Your task to perform on an android device: Search for hotels in Tokyo Image 0: 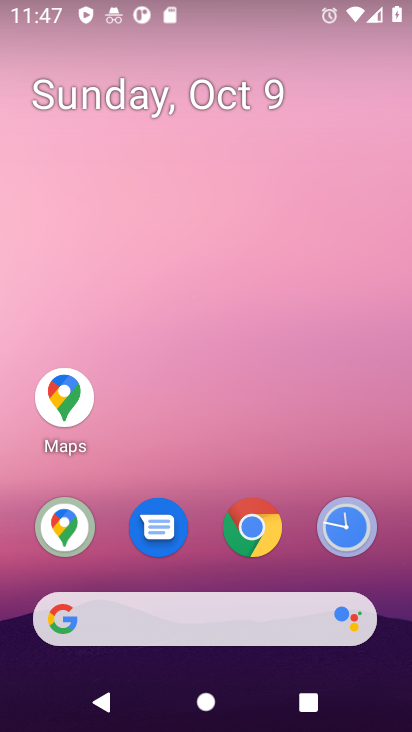
Step 0: click (64, 388)
Your task to perform on an android device: Search for hotels in Tokyo Image 1: 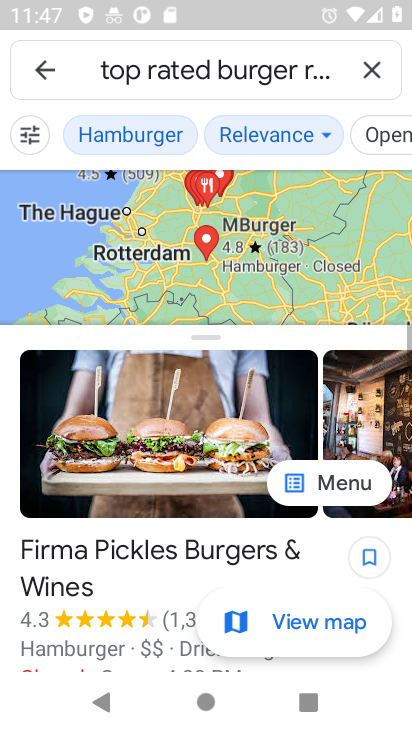
Step 1: click (227, 85)
Your task to perform on an android device: Search for hotels in Tokyo Image 2: 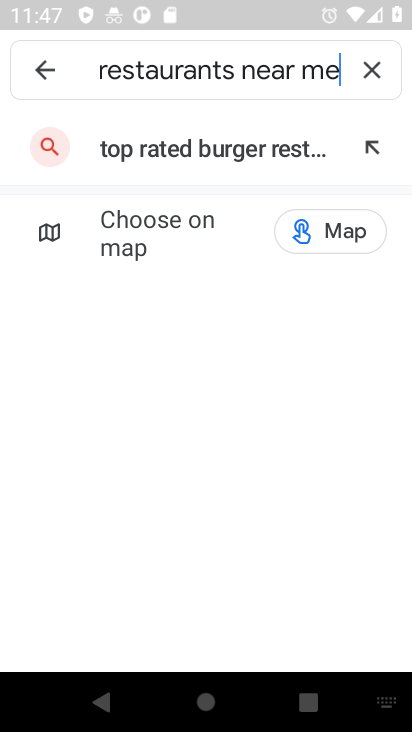
Step 2: click (364, 70)
Your task to perform on an android device: Search for hotels in Tokyo Image 3: 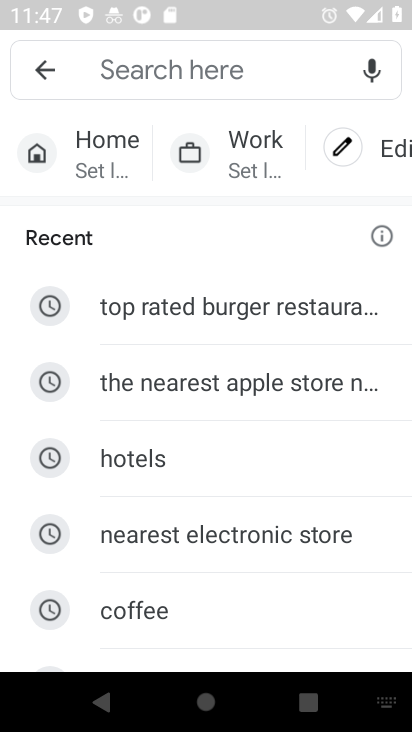
Step 3: type "hotels in Tokyo"
Your task to perform on an android device: Search for hotels in Tokyo Image 4: 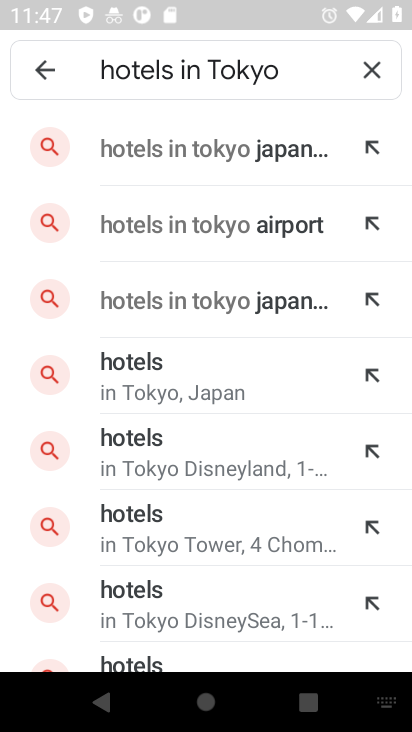
Step 4: click (206, 155)
Your task to perform on an android device: Search for hotels in Tokyo Image 5: 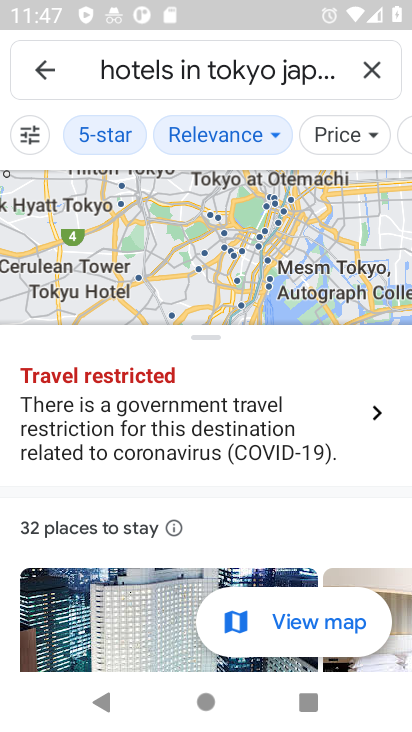
Step 5: task complete